Your task to perform on an android device: Turn off the flashlight Image 0: 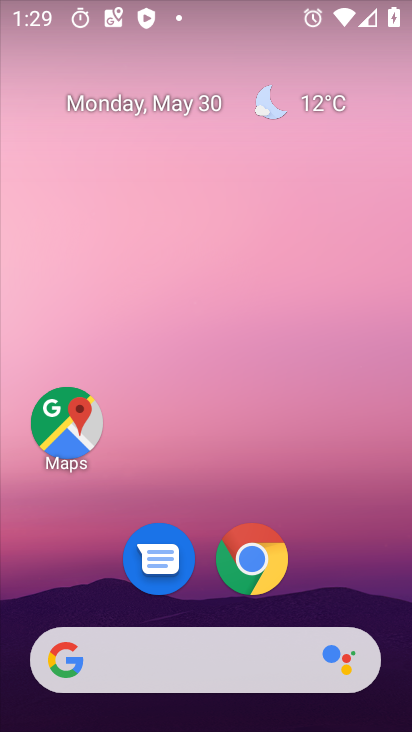
Step 0: drag from (237, 511) to (306, 15)
Your task to perform on an android device: Turn off the flashlight Image 1: 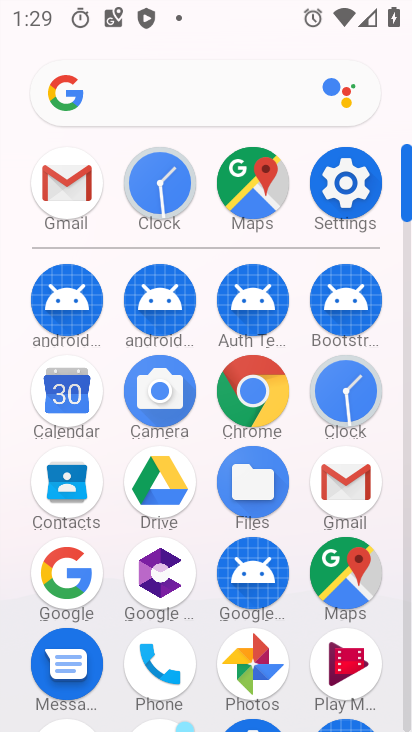
Step 1: click (340, 173)
Your task to perform on an android device: Turn off the flashlight Image 2: 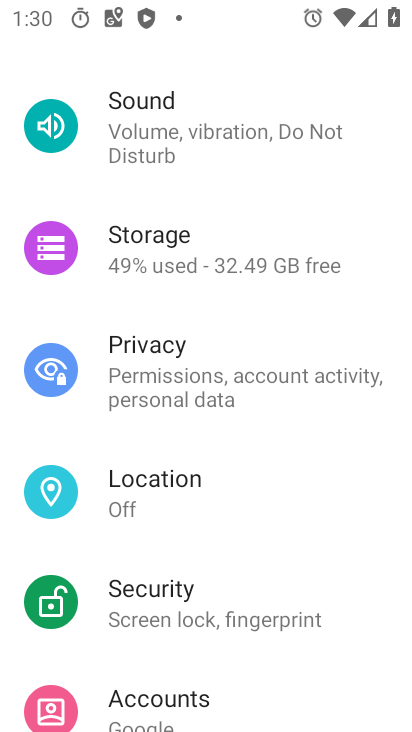
Step 2: drag from (179, 161) to (175, 579)
Your task to perform on an android device: Turn off the flashlight Image 3: 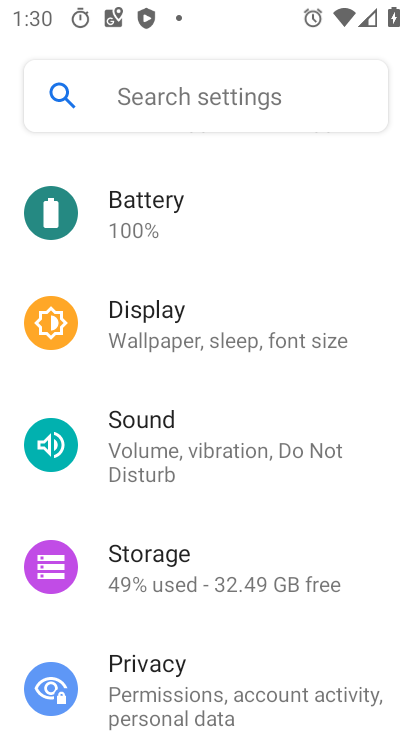
Step 3: click (168, 104)
Your task to perform on an android device: Turn off the flashlight Image 4: 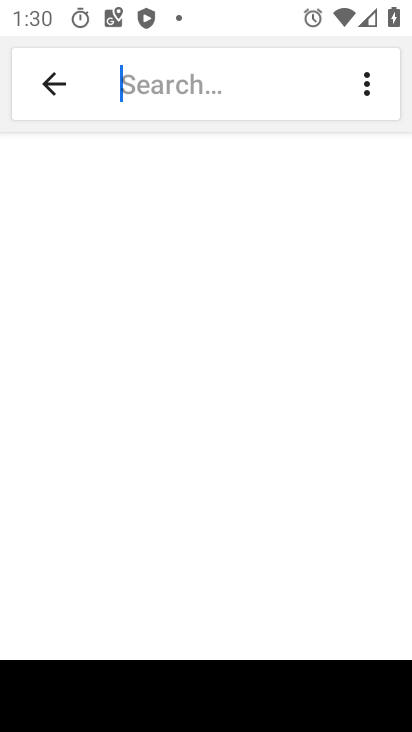
Step 4: click (164, 82)
Your task to perform on an android device: Turn off the flashlight Image 5: 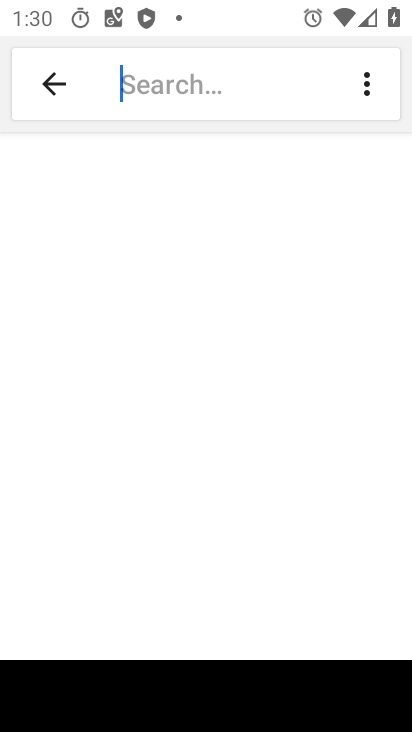
Step 5: type "flashlight"
Your task to perform on an android device: Turn off the flashlight Image 6: 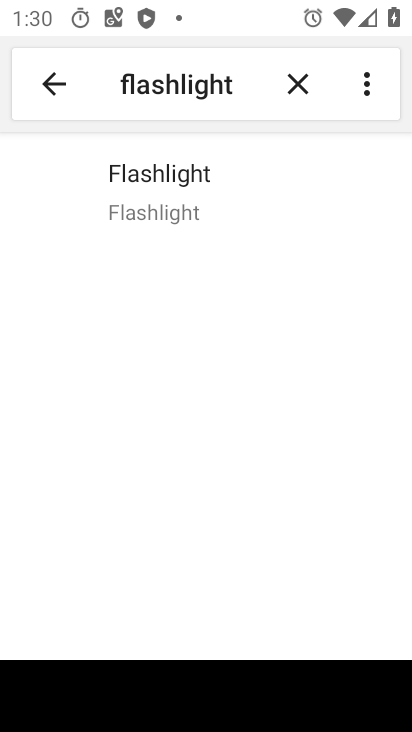
Step 6: click (153, 197)
Your task to perform on an android device: Turn off the flashlight Image 7: 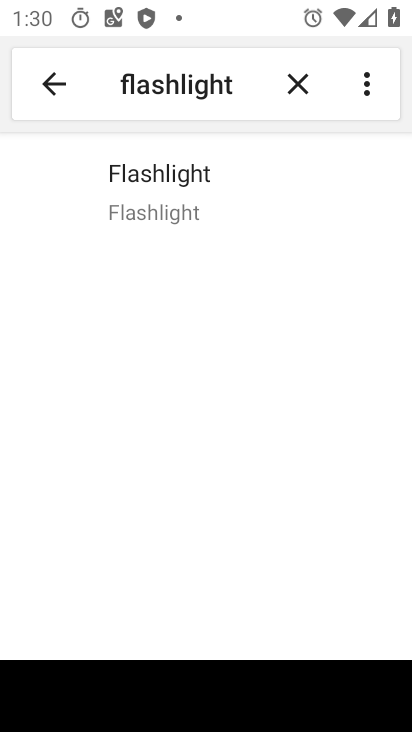
Step 7: task complete